Your task to perform on an android device: Go to Google maps Image 0: 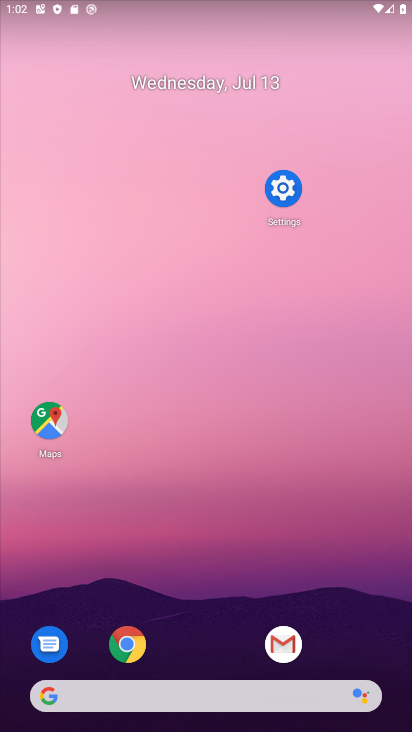
Step 0: press home button
Your task to perform on an android device: Go to Google maps Image 1: 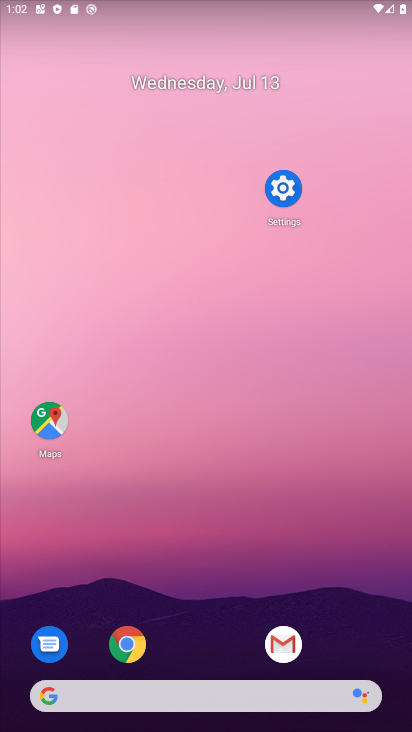
Step 1: click (35, 409)
Your task to perform on an android device: Go to Google maps Image 2: 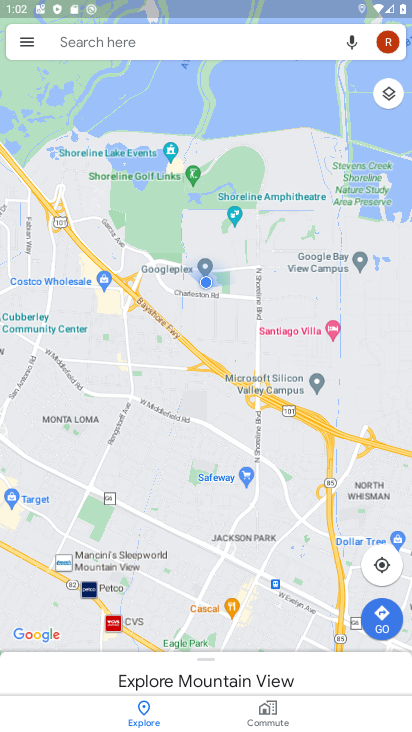
Step 2: click (374, 559)
Your task to perform on an android device: Go to Google maps Image 3: 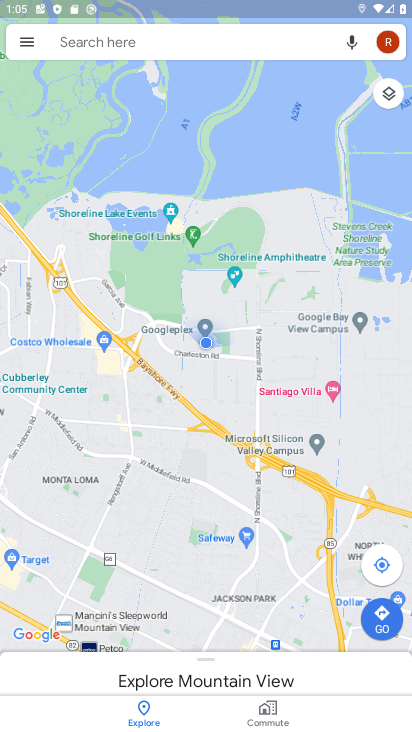
Step 3: task complete